Your task to perform on an android device: Clear the cart on ebay.com. Search for "razer kraken" on ebay.com, select the first entry, and add it to the cart. Image 0: 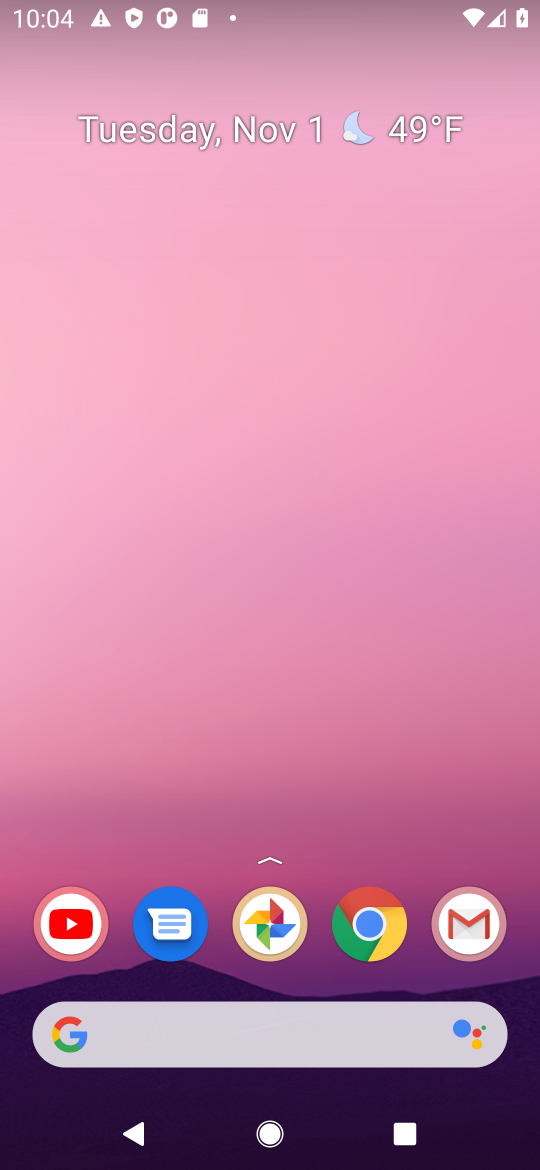
Step 0: click (374, 941)
Your task to perform on an android device: Clear the cart on ebay.com. Search for "razer kraken" on ebay.com, select the first entry, and add it to the cart. Image 1: 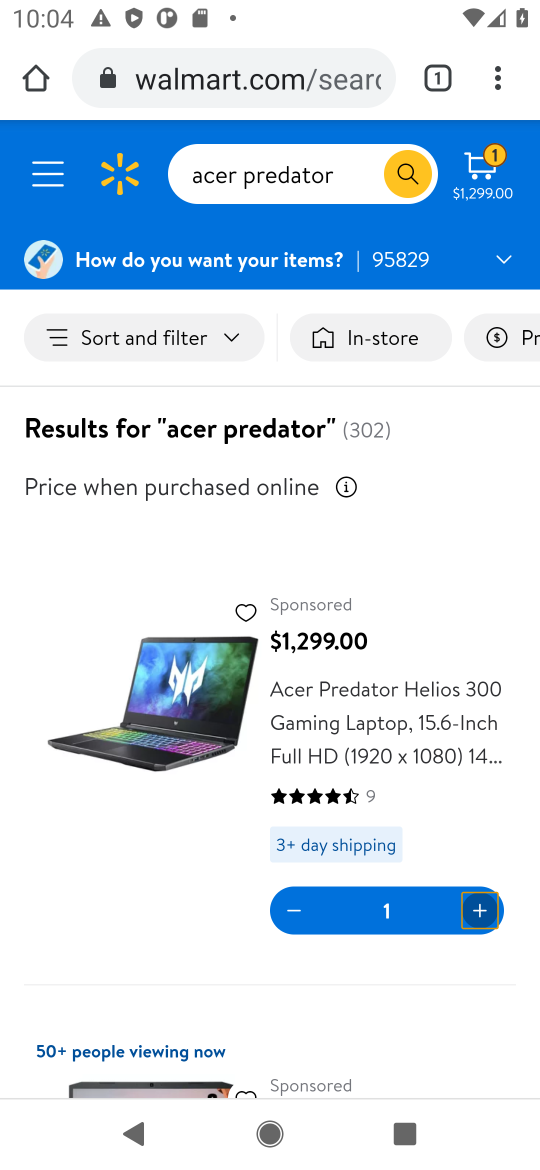
Step 1: click (250, 92)
Your task to perform on an android device: Clear the cart on ebay.com. Search for "razer kraken" on ebay.com, select the first entry, and add it to the cart. Image 2: 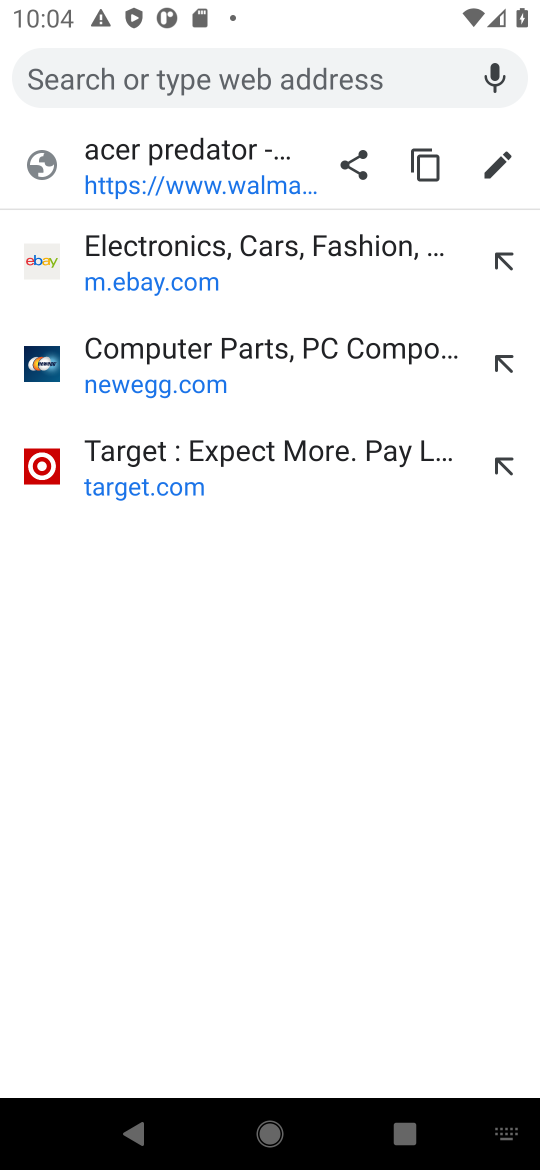
Step 2: type "ebay"
Your task to perform on an android device: Clear the cart on ebay.com. Search for "razer kraken" on ebay.com, select the first entry, and add it to the cart. Image 3: 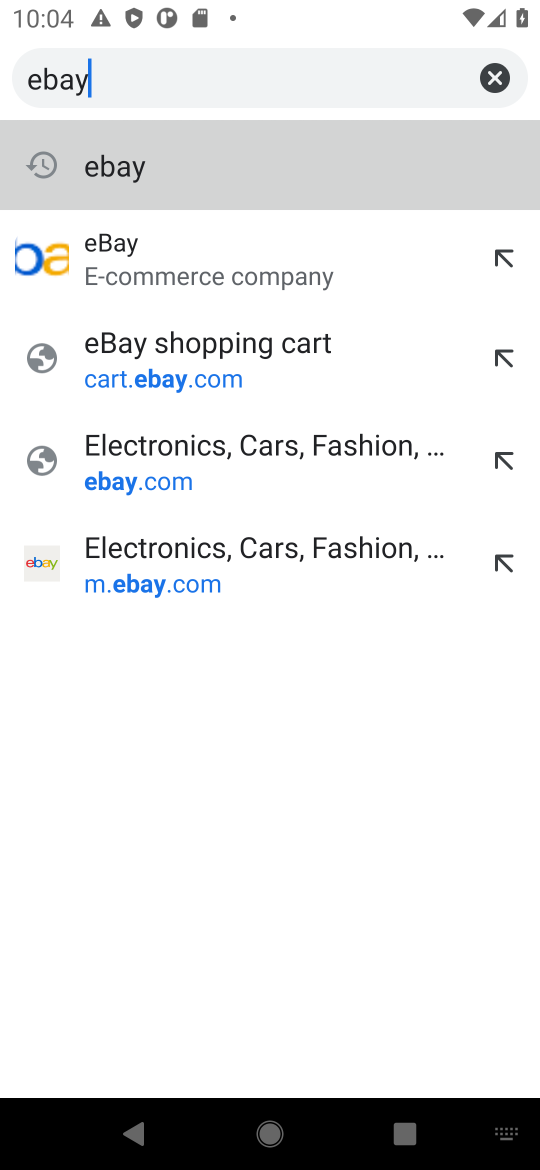
Step 3: click (187, 184)
Your task to perform on an android device: Clear the cart on ebay.com. Search for "razer kraken" on ebay.com, select the first entry, and add it to the cart. Image 4: 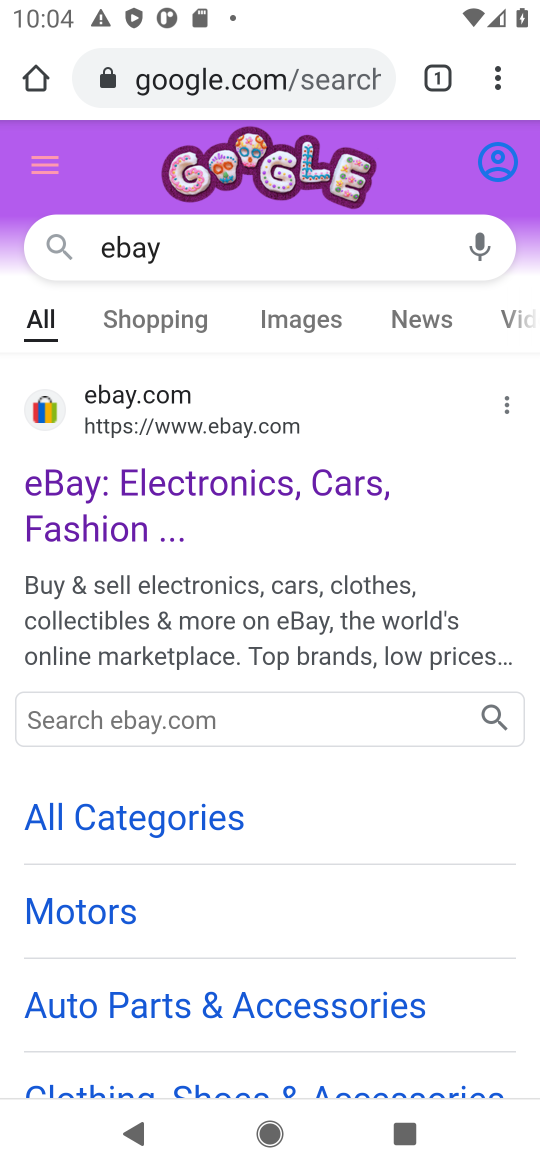
Step 4: click (99, 492)
Your task to perform on an android device: Clear the cart on ebay.com. Search for "razer kraken" on ebay.com, select the first entry, and add it to the cart. Image 5: 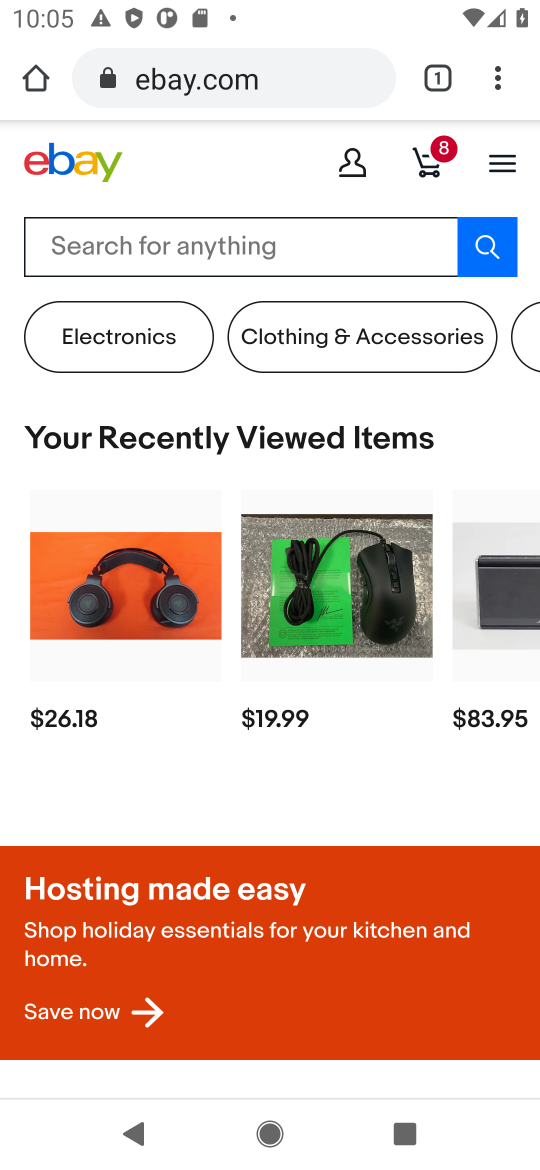
Step 5: click (435, 155)
Your task to perform on an android device: Clear the cart on ebay.com. Search for "razer kraken" on ebay.com, select the first entry, and add it to the cart. Image 6: 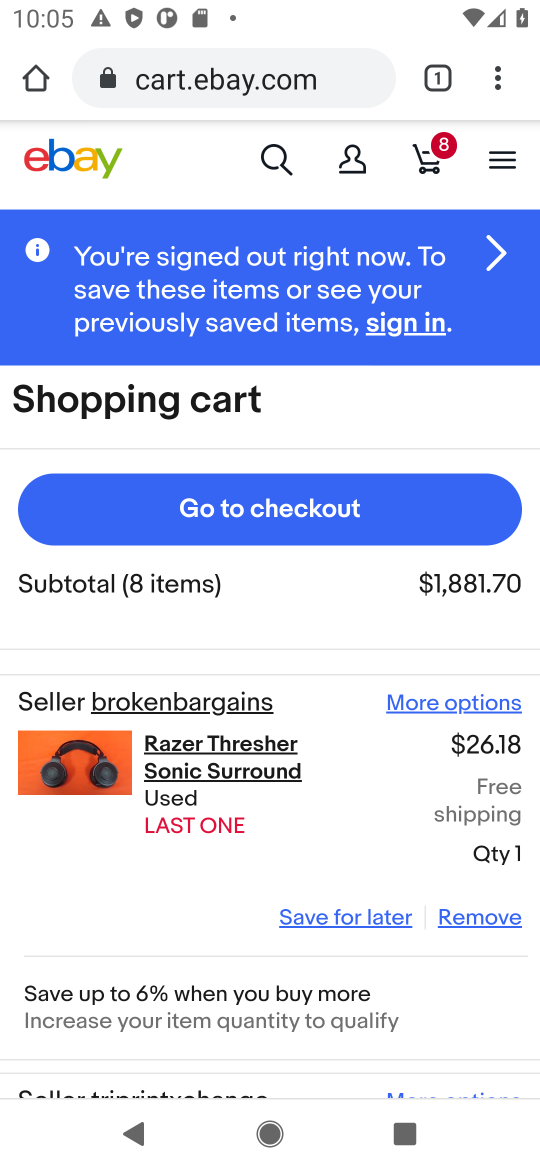
Step 6: click (472, 917)
Your task to perform on an android device: Clear the cart on ebay.com. Search for "razer kraken" on ebay.com, select the first entry, and add it to the cart. Image 7: 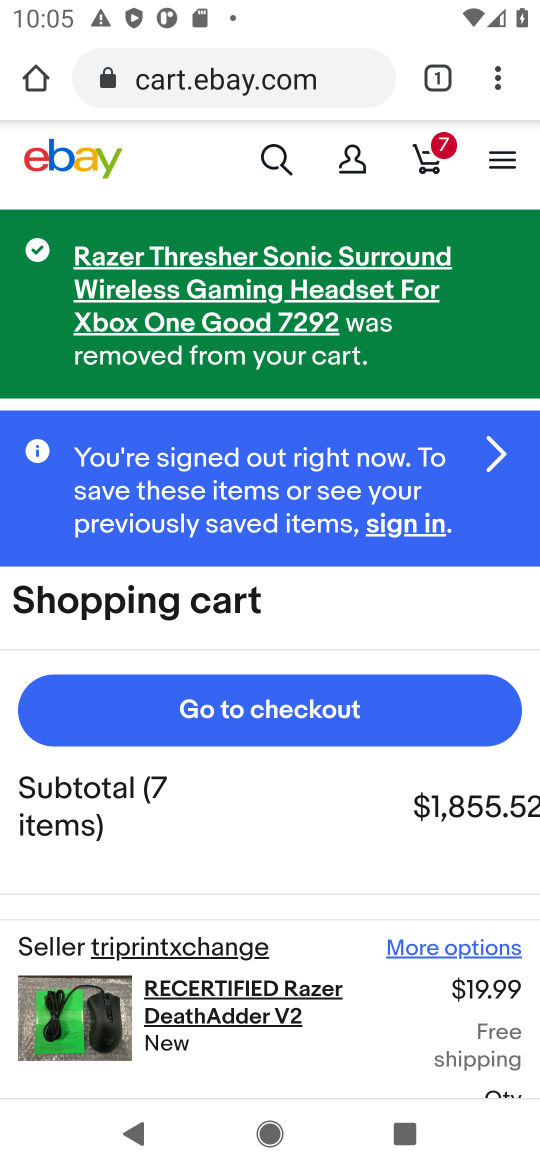
Step 7: drag from (367, 821) to (337, 507)
Your task to perform on an android device: Clear the cart on ebay.com. Search for "razer kraken" on ebay.com, select the first entry, and add it to the cart. Image 8: 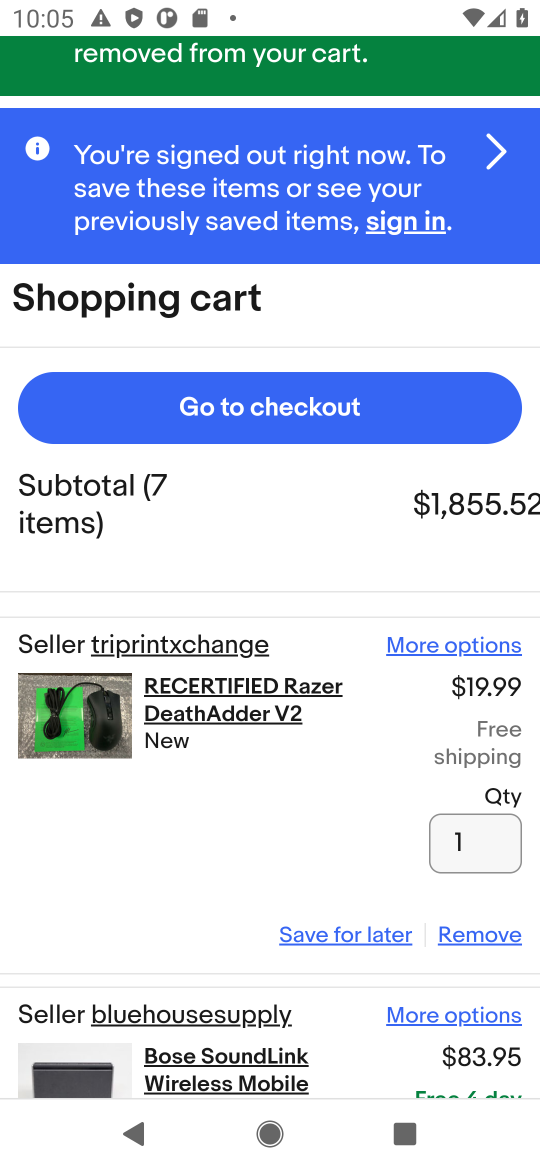
Step 8: click (483, 941)
Your task to perform on an android device: Clear the cart on ebay.com. Search for "razer kraken" on ebay.com, select the first entry, and add it to the cart. Image 9: 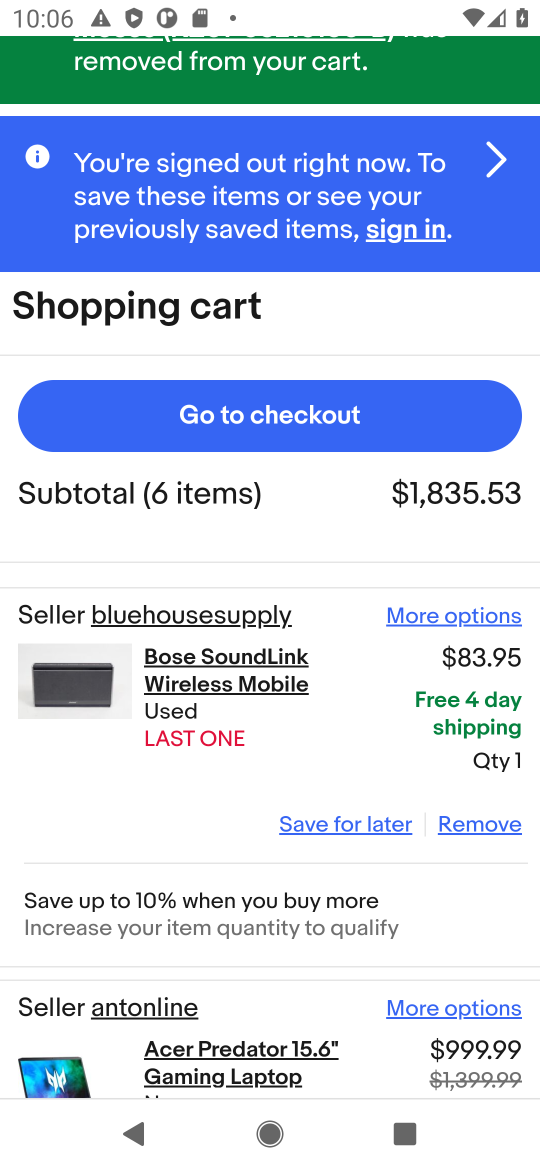
Step 9: click (489, 820)
Your task to perform on an android device: Clear the cart on ebay.com. Search for "razer kraken" on ebay.com, select the first entry, and add it to the cart. Image 10: 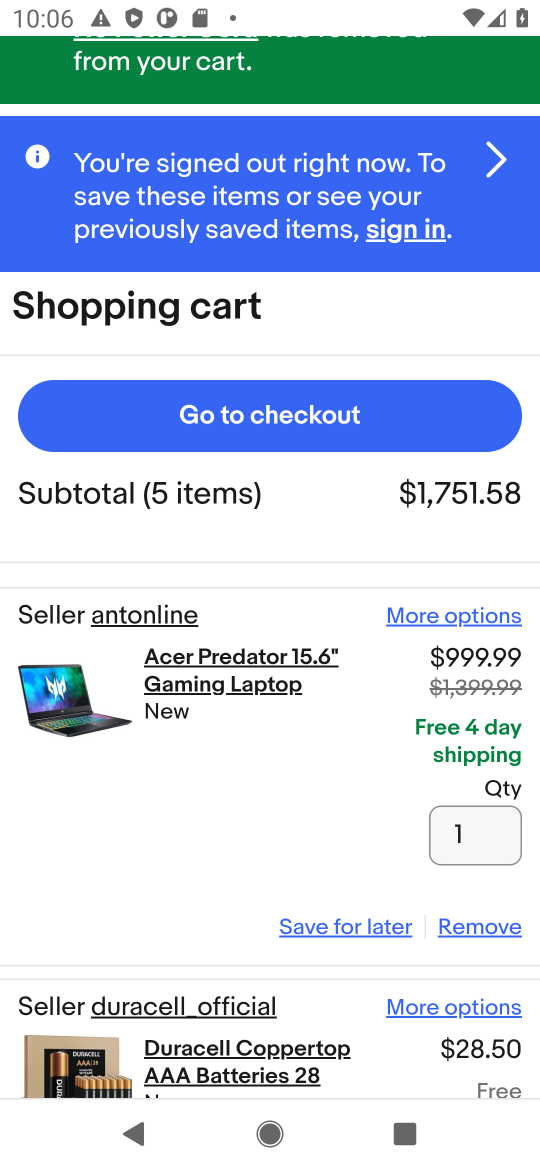
Step 10: click (481, 924)
Your task to perform on an android device: Clear the cart on ebay.com. Search for "razer kraken" on ebay.com, select the first entry, and add it to the cart. Image 11: 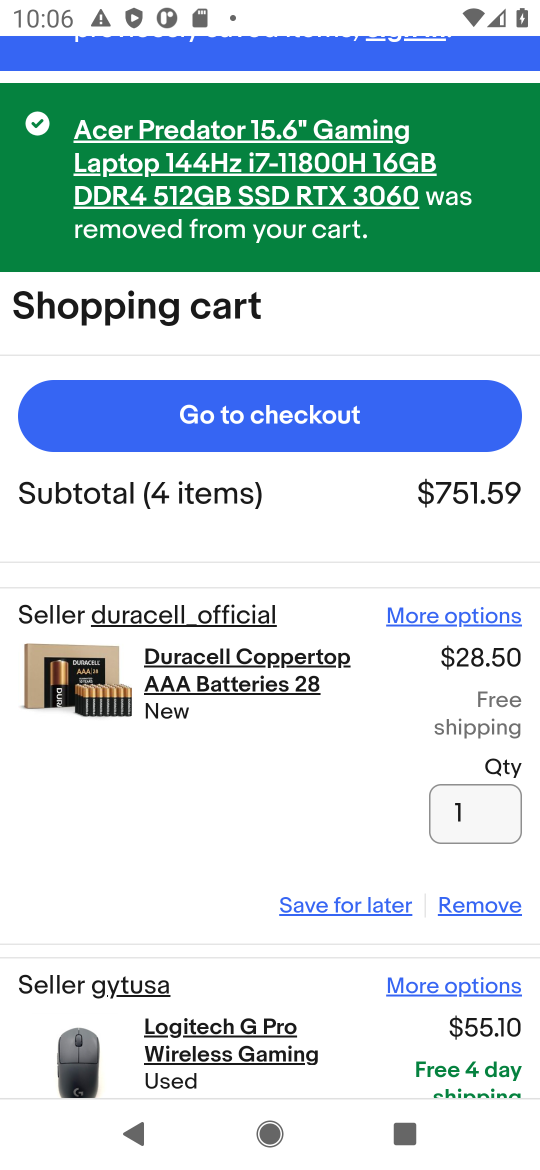
Step 11: click (474, 906)
Your task to perform on an android device: Clear the cart on ebay.com. Search for "razer kraken" on ebay.com, select the first entry, and add it to the cart. Image 12: 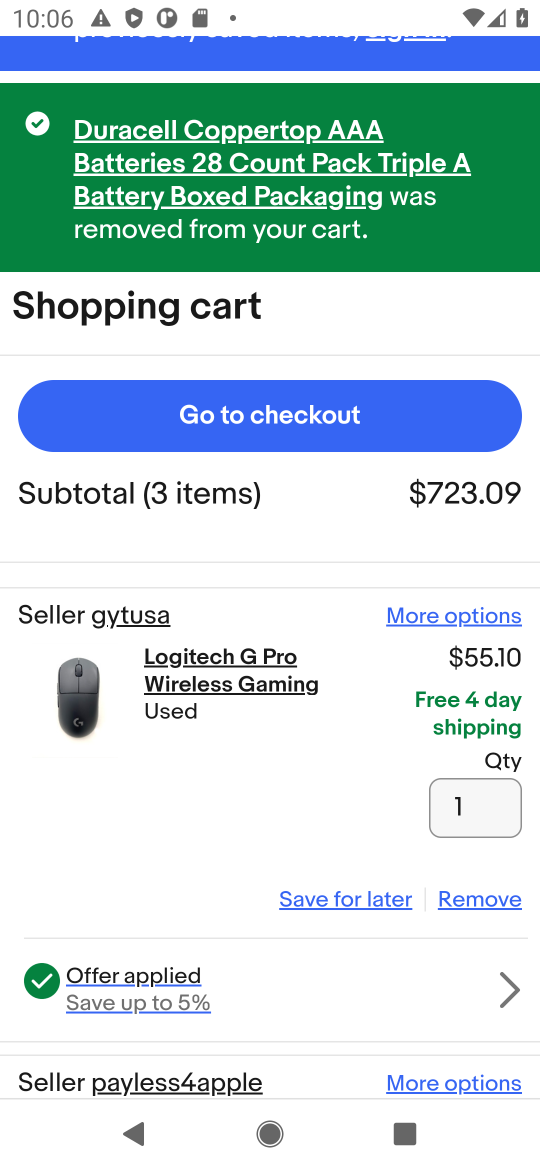
Step 12: click (470, 903)
Your task to perform on an android device: Clear the cart on ebay.com. Search for "razer kraken" on ebay.com, select the first entry, and add it to the cart. Image 13: 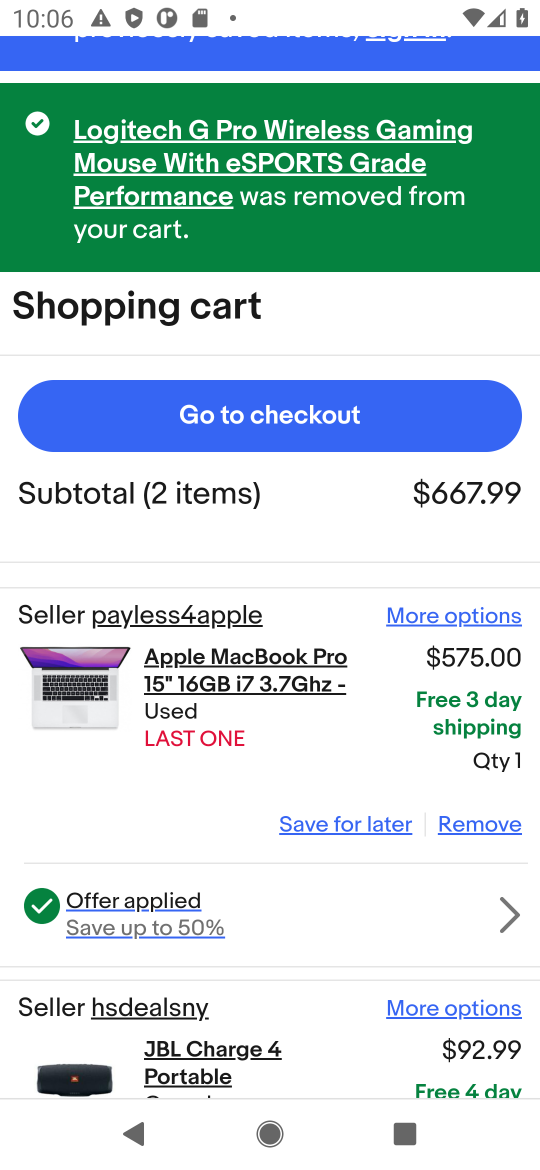
Step 13: click (494, 819)
Your task to perform on an android device: Clear the cart on ebay.com. Search for "razer kraken" on ebay.com, select the first entry, and add it to the cart. Image 14: 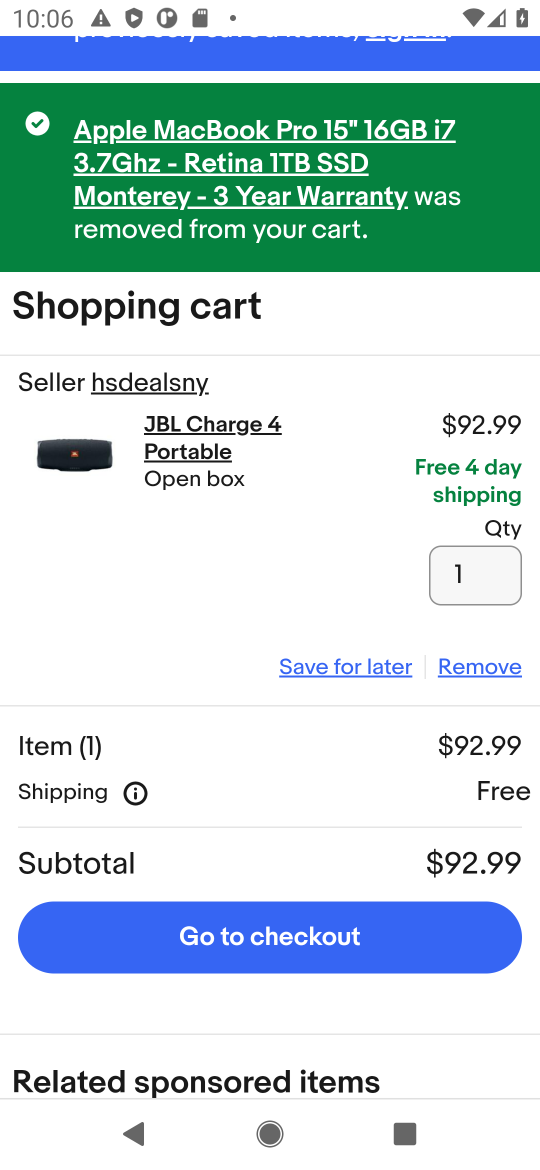
Step 14: click (493, 675)
Your task to perform on an android device: Clear the cart on ebay.com. Search for "razer kraken" on ebay.com, select the first entry, and add it to the cart. Image 15: 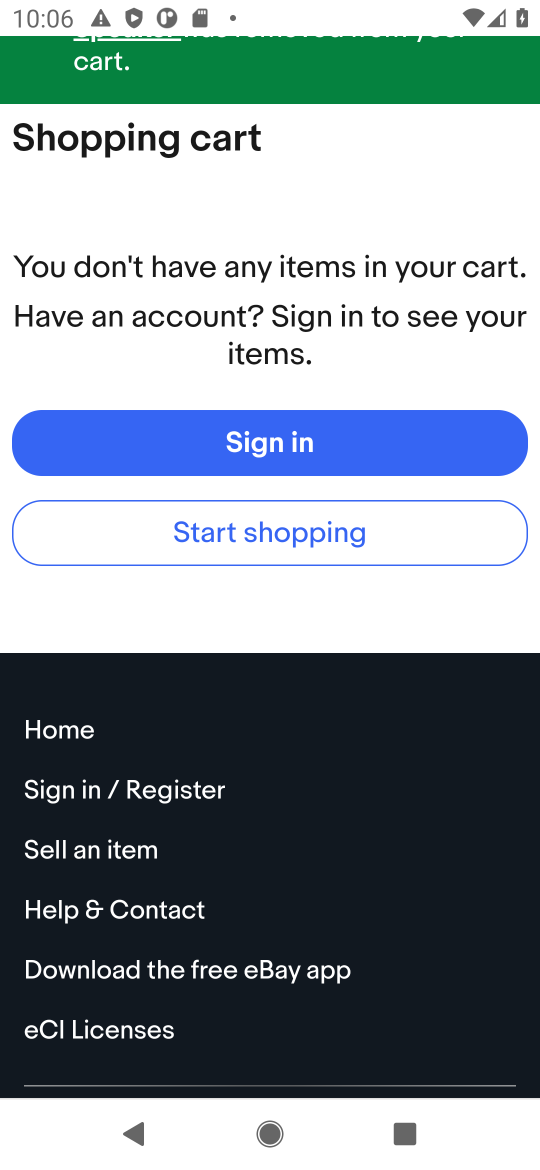
Step 15: click (303, 550)
Your task to perform on an android device: Clear the cart on ebay.com. Search for "razer kraken" on ebay.com, select the first entry, and add it to the cart. Image 16: 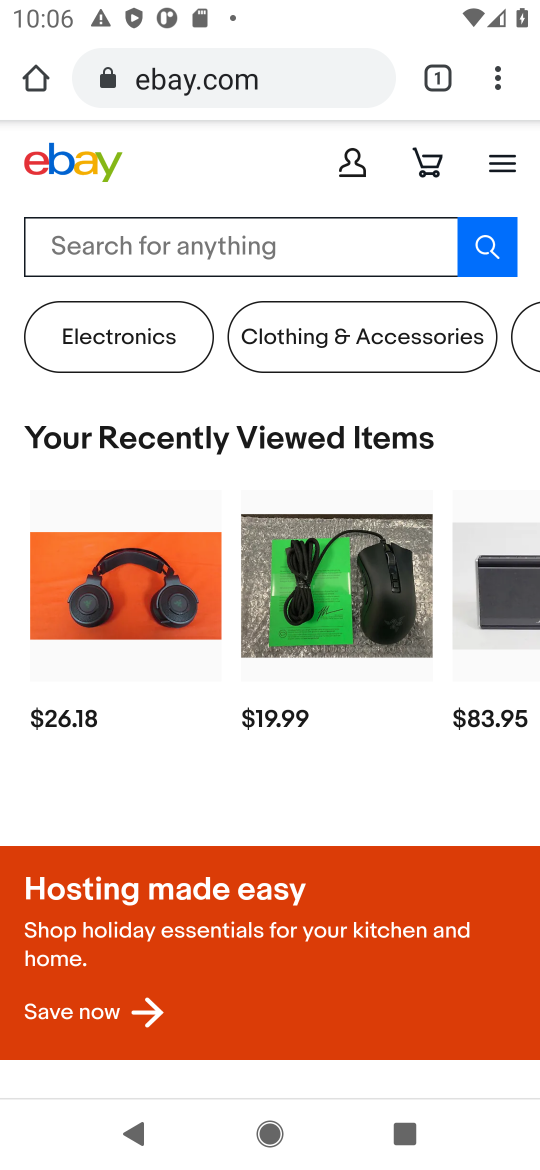
Step 16: click (297, 256)
Your task to perform on an android device: Clear the cart on ebay.com. Search for "razer kraken" on ebay.com, select the first entry, and add it to the cart. Image 17: 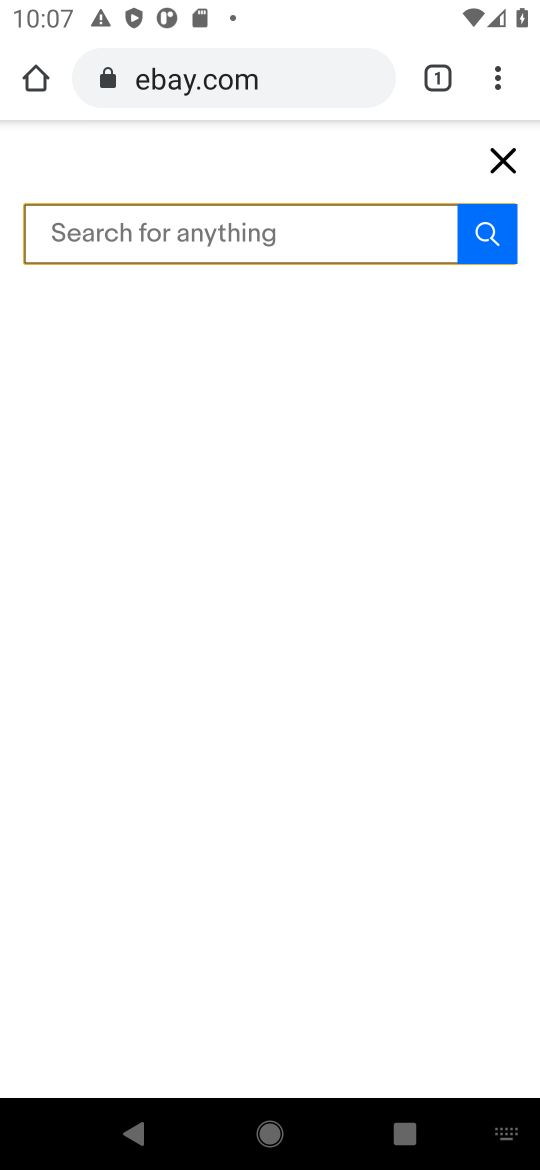
Step 17: type "razer kraken"
Your task to perform on an android device: Clear the cart on ebay.com. Search for "razer kraken" on ebay.com, select the first entry, and add it to the cart. Image 18: 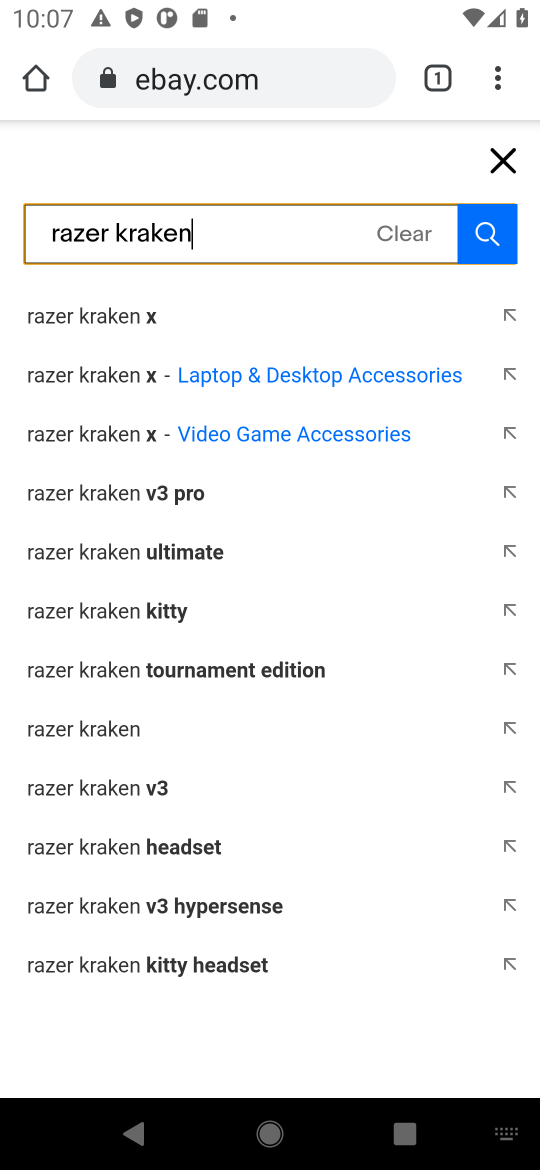
Step 18: click (493, 239)
Your task to perform on an android device: Clear the cart on ebay.com. Search for "razer kraken" on ebay.com, select the first entry, and add it to the cart. Image 19: 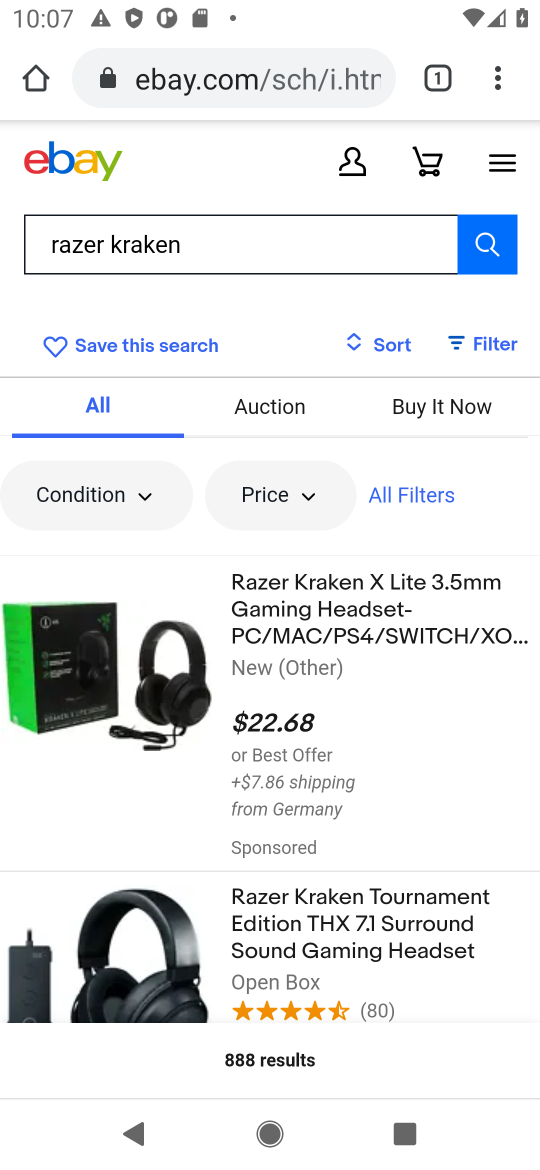
Step 19: click (309, 586)
Your task to perform on an android device: Clear the cart on ebay.com. Search for "razer kraken" on ebay.com, select the first entry, and add it to the cart. Image 20: 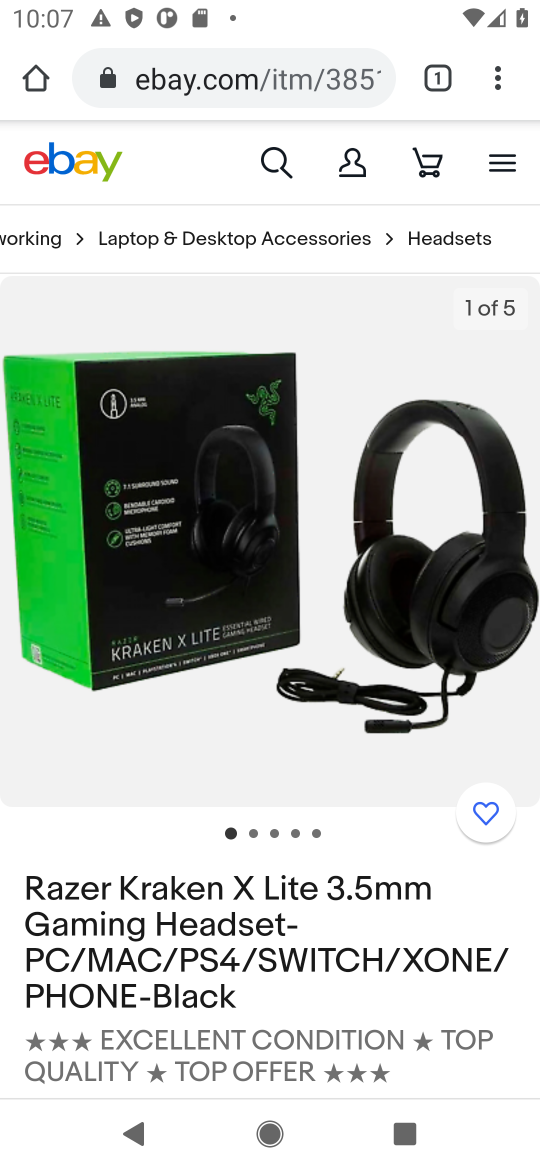
Step 20: drag from (372, 802) to (274, 245)
Your task to perform on an android device: Clear the cart on ebay.com. Search for "razer kraken" on ebay.com, select the first entry, and add it to the cart. Image 21: 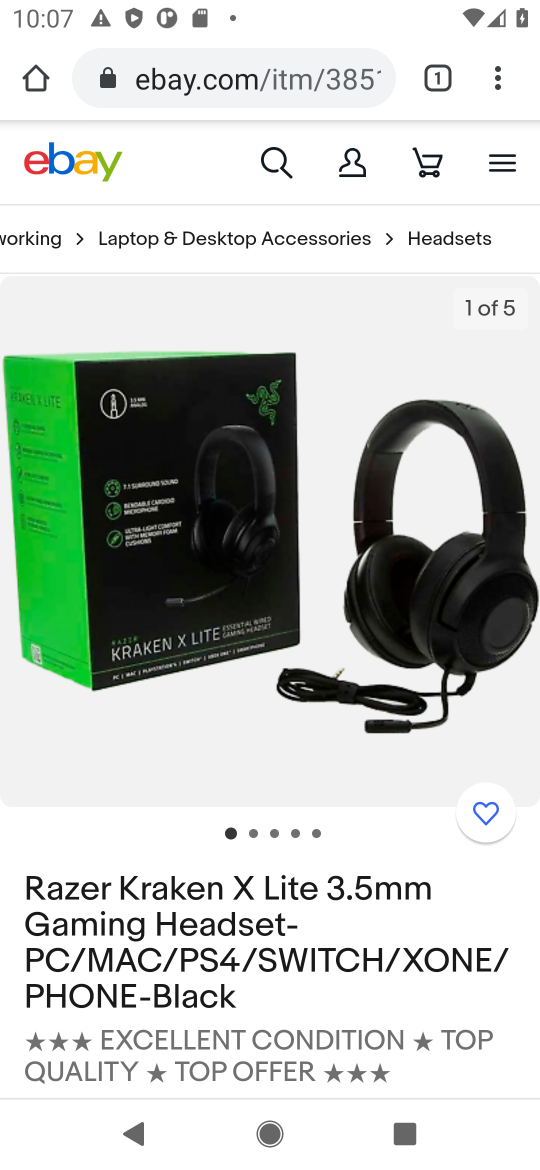
Step 21: drag from (407, 927) to (365, 300)
Your task to perform on an android device: Clear the cart on ebay.com. Search for "razer kraken" on ebay.com, select the first entry, and add it to the cart. Image 22: 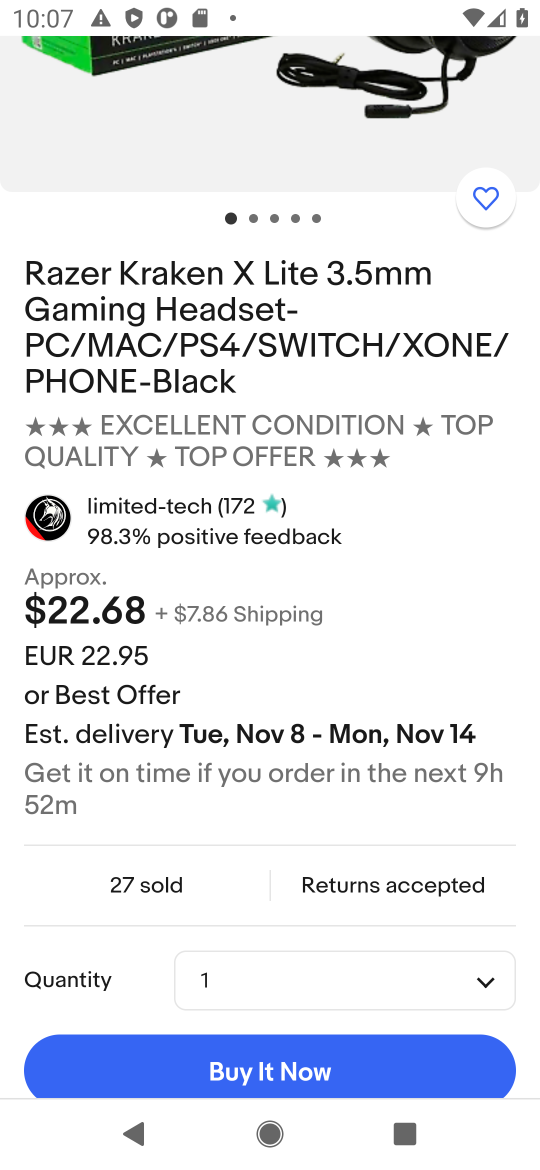
Step 22: drag from (403, 822) to (324, 267)
Your task to perform on an android device: Clear the cart on ebay.com. Search for "razer kraken" on ebay.com, select the first entry, and add it to the cart. Image 23: 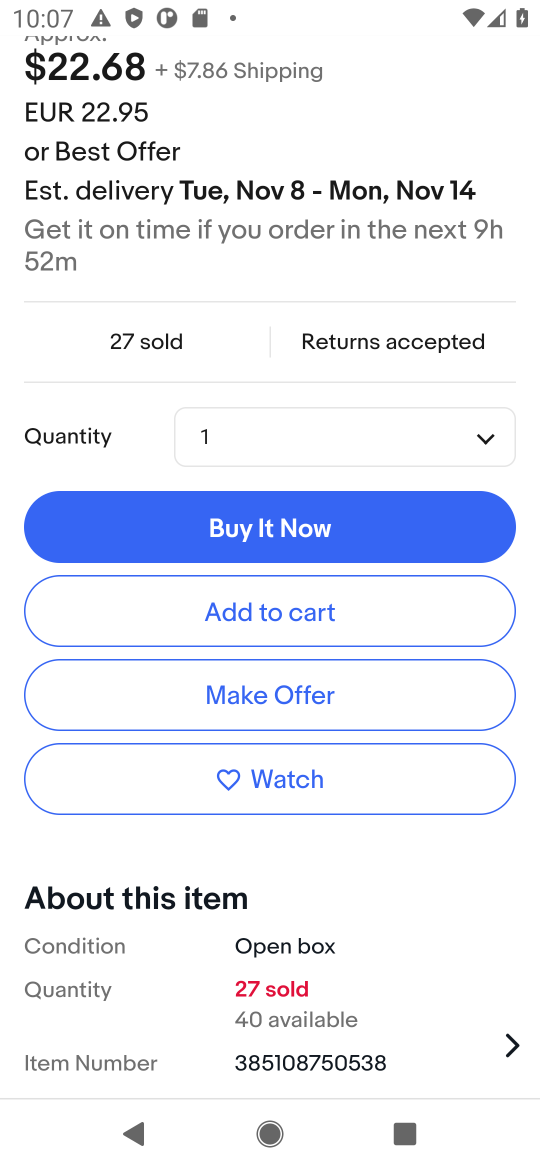
Step 23: click (283, 674)
Your task to perform on an android device: Clear the cart on ebay.com. Search for "razer kraken" on ebay.com, select the first entry, and add it to the cart. Image 24: 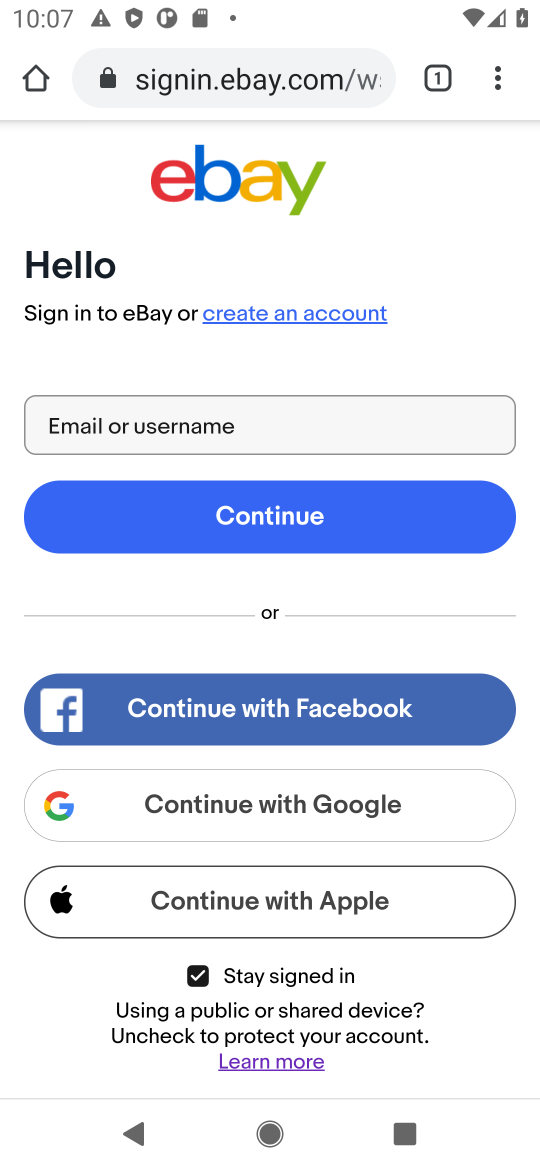
Step 24: task complete